Your task to perform on an android device: delete the emails in spam in the gmail app Image 0: 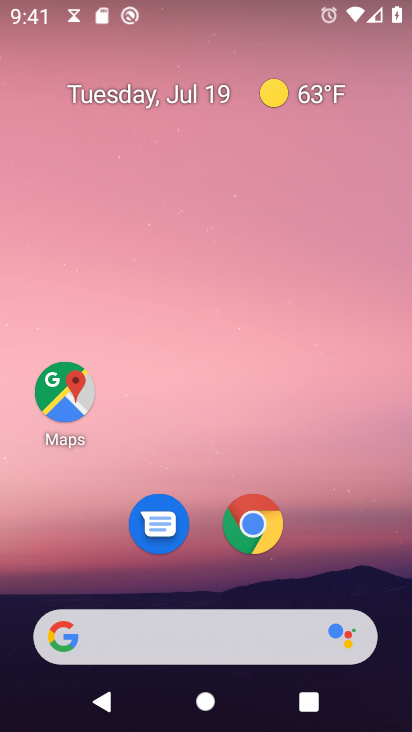
Step 0: drag from (221, 616) to (353, 158)
Your task to perform on an android device: delete the emails in spam in the gmail app Image 1: 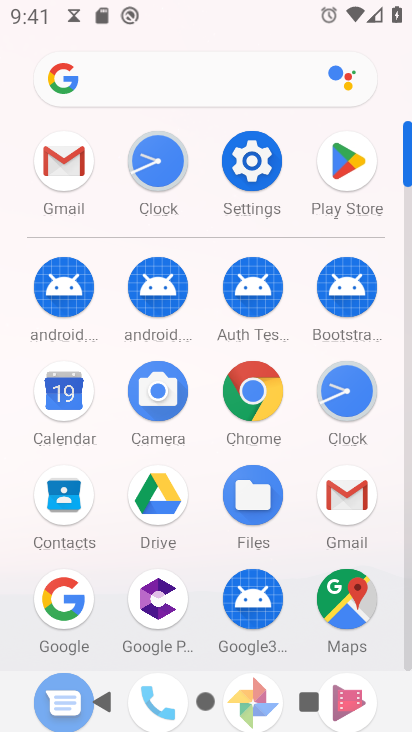
Step 1: click (62, 167)
Your task to perform on an android device: delete the emails in spam in the gmail app Image 2: 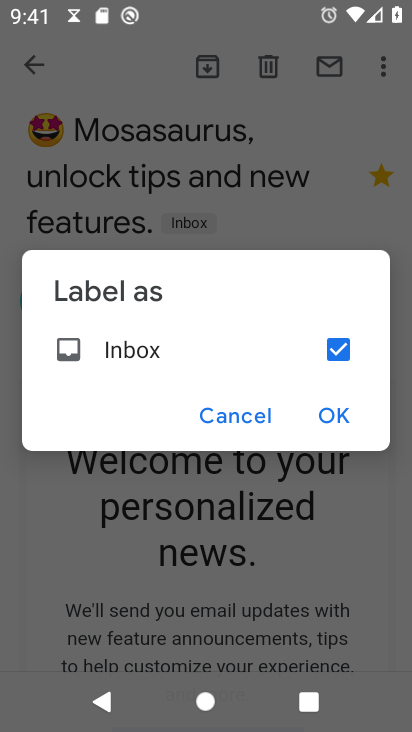
Step 2: click (28, 68)
Your task to perform on an android device: delete the emails in spam in the gmail app Image 3: 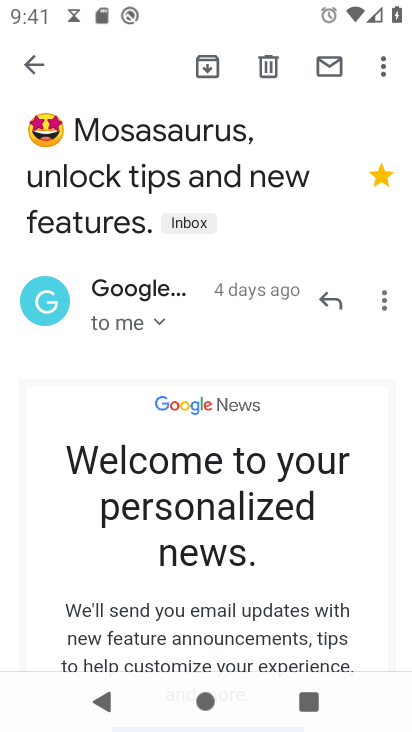
Step 3: click (28, 68)
Your task to perform on an android device: delete the emails in spam in the gmail app Image 4: 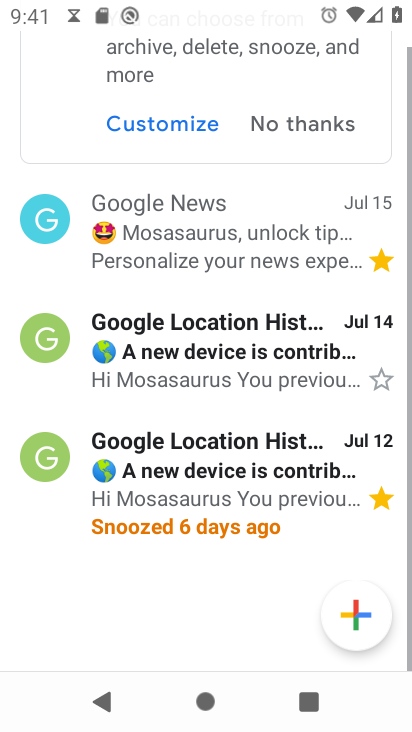
Step 4: drag from (79, 136) to (100, 581)
Your task to perform on an android device: delete the emails in spam in the gmail app Image 5: 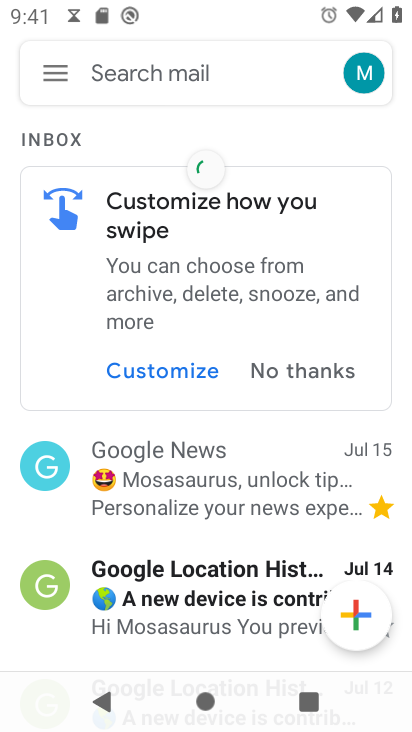
Step 5: click (63, 71)
Your task to perform on an android device: delete the emails in spam in the gmail app Image 6: 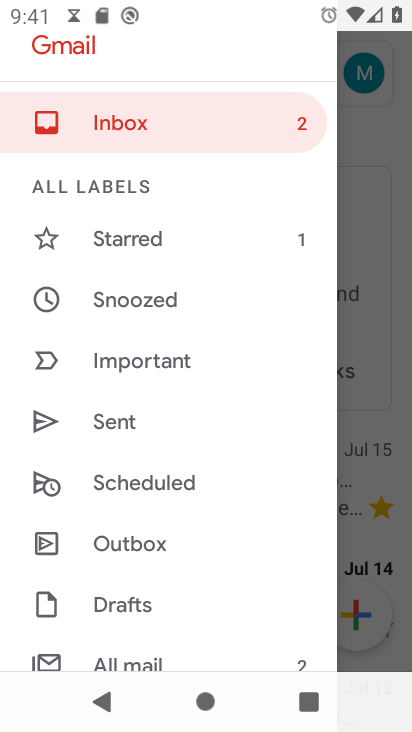
Step 6: drag from (205, 454) to (262, 223)
Your task to perform on an android device: delete the emails in spam in the gmail app Image 7: 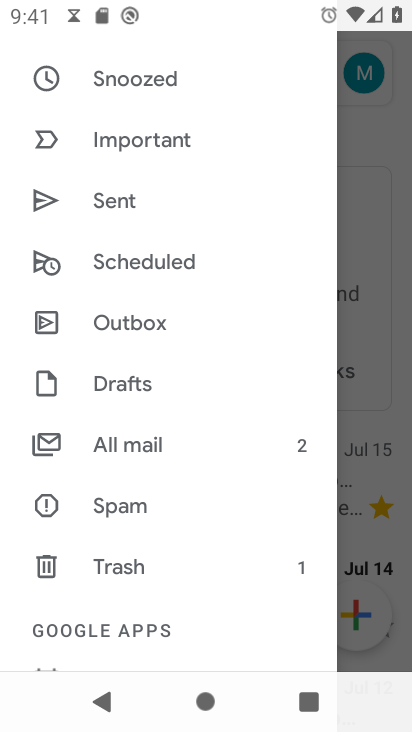
Step 7: click (144, 504)
Your task to perform on an android device: delete the emails in spam in the gmail app Image 8: 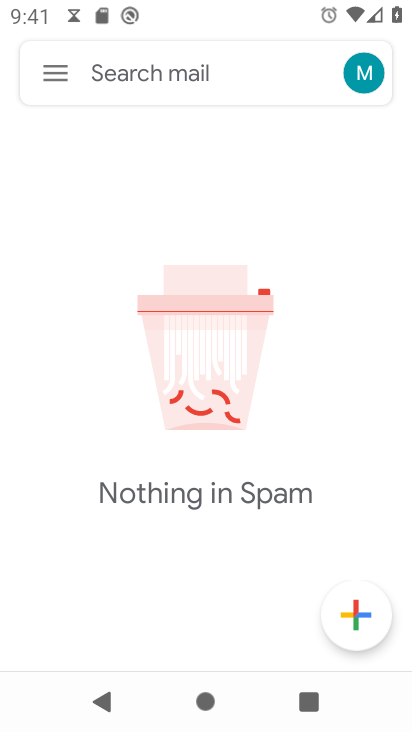
Step 8: task complete